Your task to perform on an android device: Do I have any events tomorrow? Image 0: 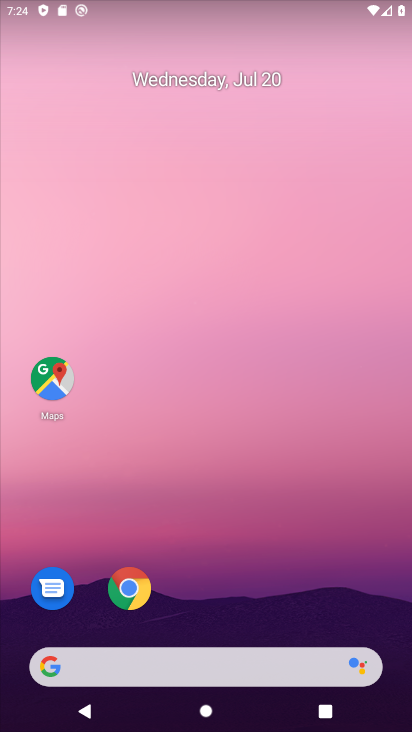
Step 0: drag from (274, 694) to (318, 109)
Your task to perform on an android device: Do I have any events tomorrow? Image 1: 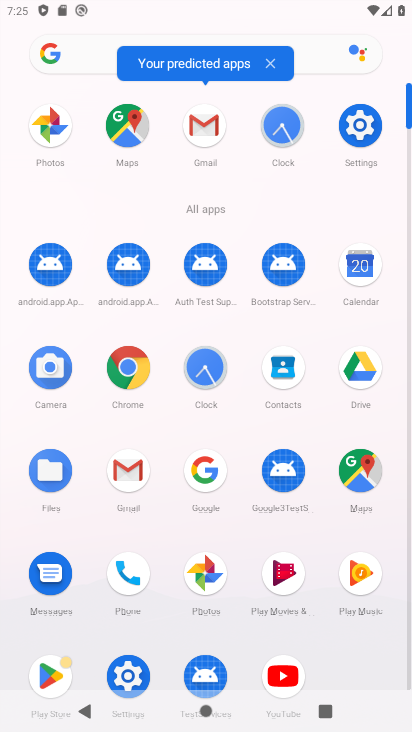
Step 1: click (358, 278)
Your task to perform on an android device: Do I have any events tomorrow? Image 2: 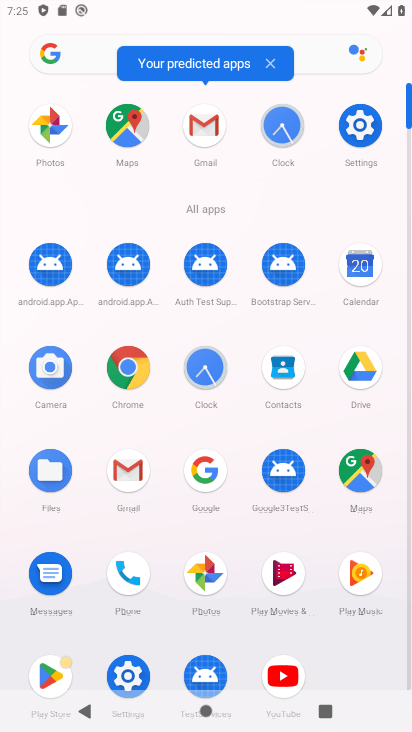
Step 2: click (358, 278)
Your task to perform on an android device: Do I have any events tomorrow? Image 3: 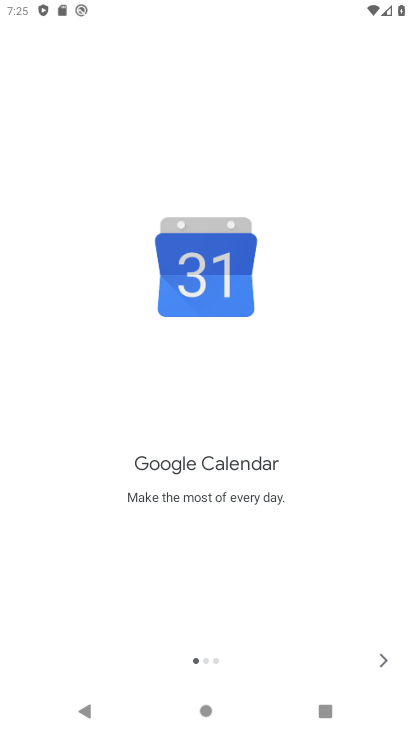
Step 3: click (387, 641)
Your task to perform on an android device: Do I have any events tomorrow? Image 4: 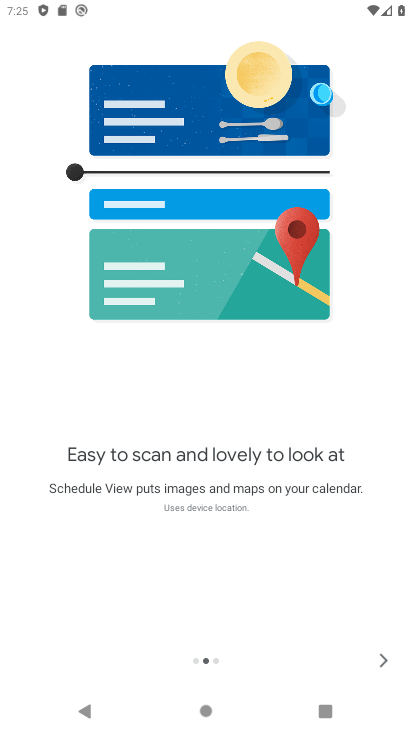
Step 4: click (387, 641)
Your task to perform on an android device: Do I have any events tomorrow? Image 5: 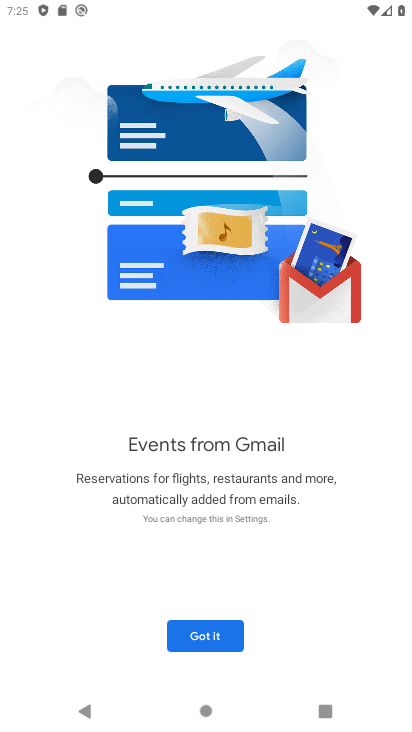
Step 5: click (387, 641)
Your task to perform on an android device: Do I have any events tomorrow? Image 6: 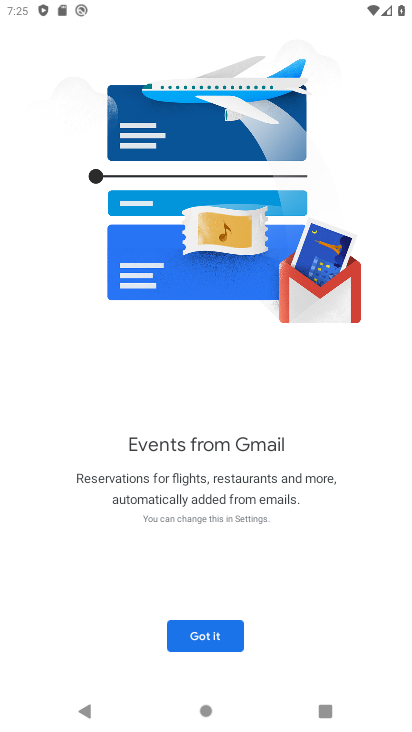
Step 6: click (194, 634)
Your task to perform on an android device: Do I have any events tomorrow? Image 7: 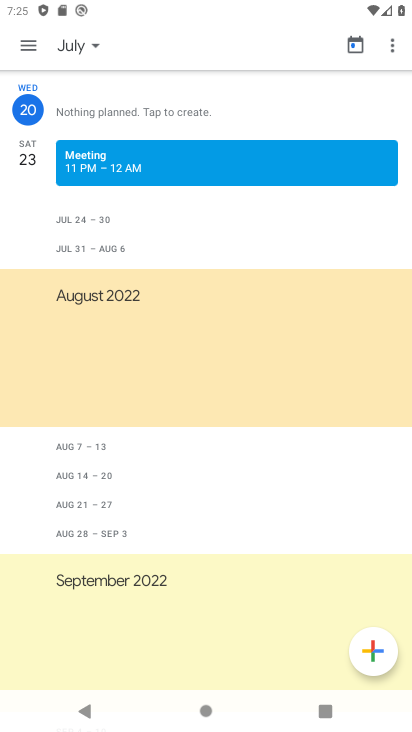
Step 7: click (68, 48)
Your task to perform on an android device: Do I have any events tomorrow? Image 8: 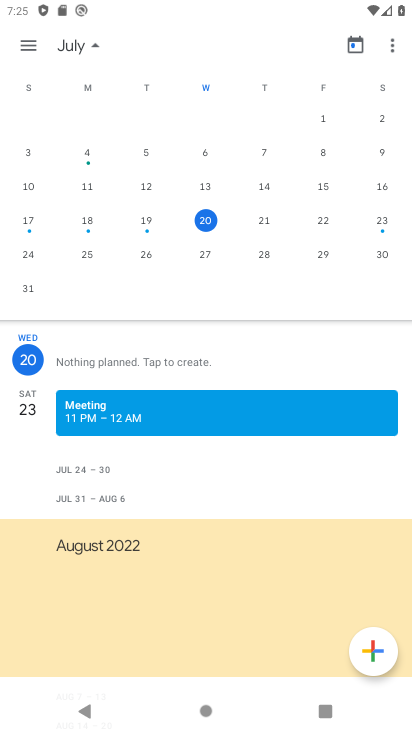
Step 8: click (265, 218)
Your task to perform on an android device: Do I have any events tomorrow? Image 9: 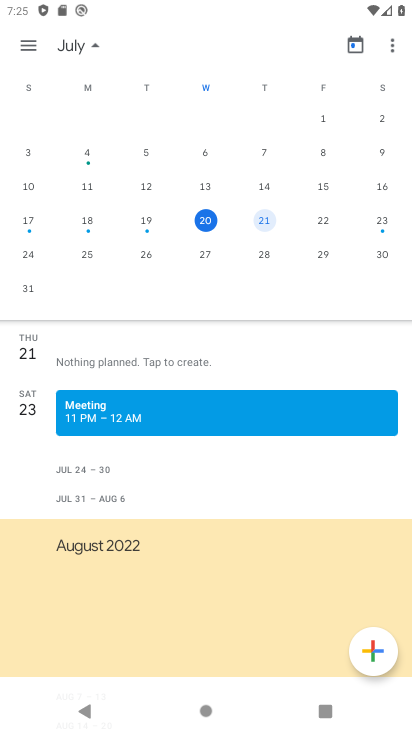
Step 9: task complete